Your task to perform on an android device: add a contact Image 0: 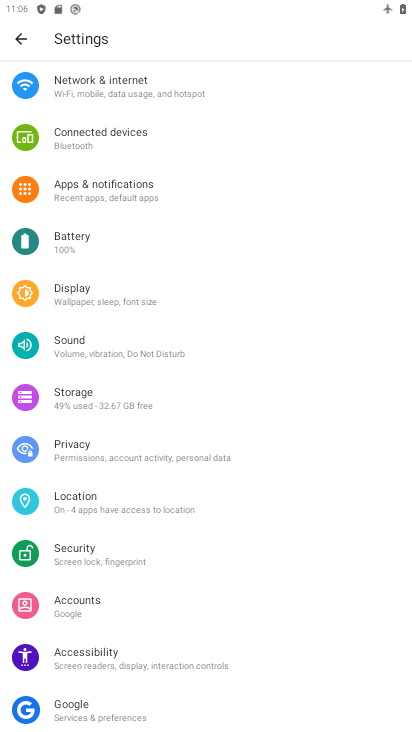
Step 0: press home button
Your task to perform on an android device: add a contact Image 1: 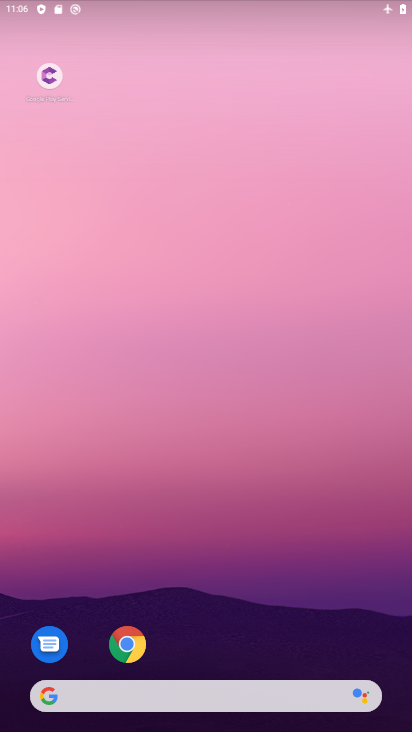
Step 1: drag from (280, 640) to (265, 155)
Your task to perform on an android device: add a contact Image 2: 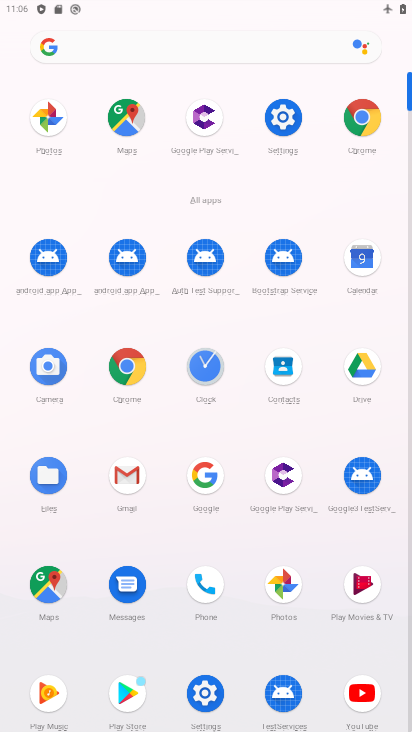
Step 2: click (275, 382)
Your task to perform on an android device: add a contact Image 3: 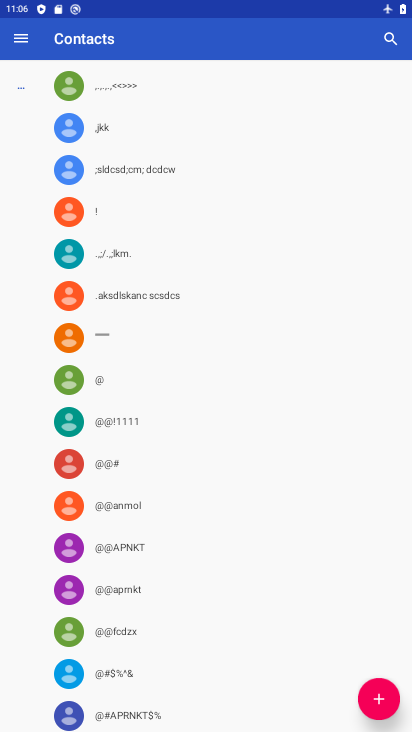
Step 3: click (375, 688)
Your task to perform on an android device: add a contact Image 4: 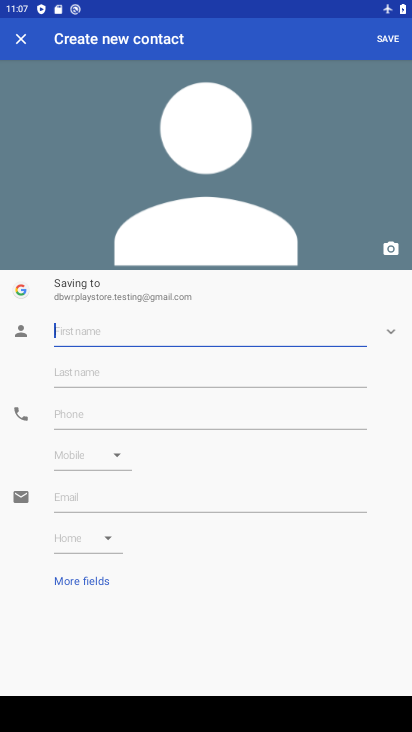
Step 4: type "fbc"
Your task to perform on an android device: add a contact Image 5: 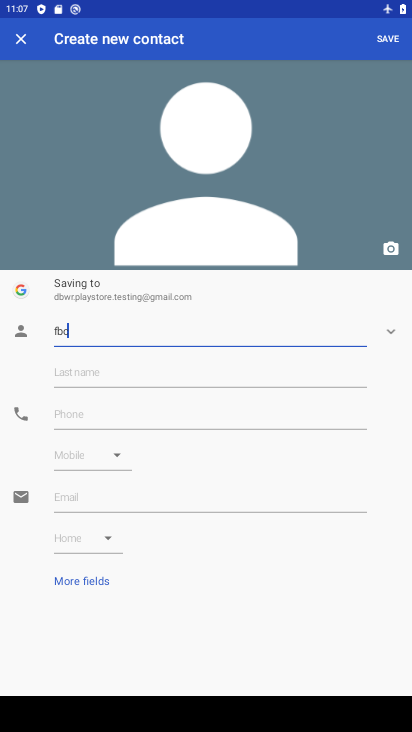
Step 5: click (114, 413)
Your task to perform on an android device: add a contact Image 6: 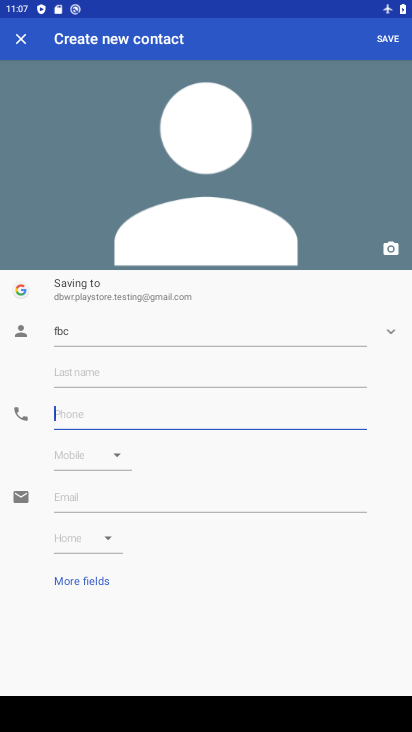
Step 6: type "864857568"
Your task to perform on an android device: add a contact Image 7: 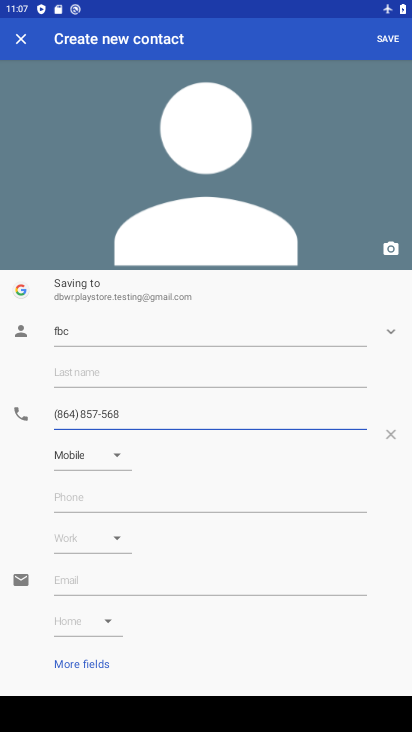
Step 7: click (381, 44)
Your task to perform on an android device: add a contact Image 8: 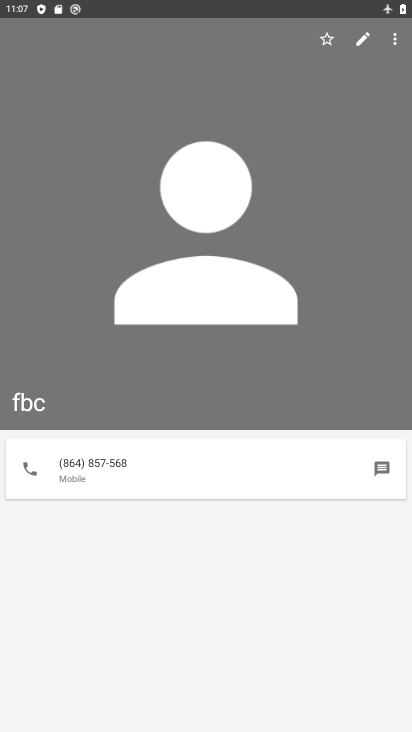
Step 8: task complete